Your task to perform on an android device: What is the recent news? Image 0: 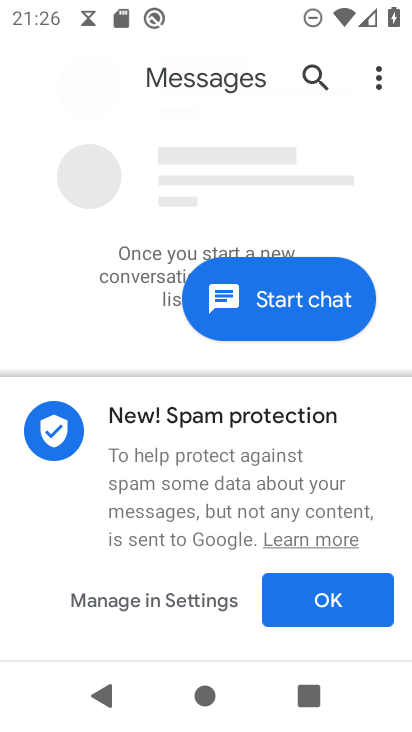
Step 0: press home button
Your task to perform on an android device: What is the recent news? Image 1: 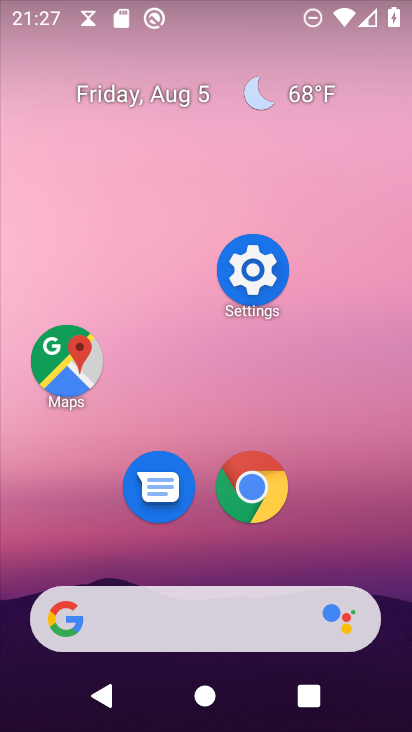
Step 1: click (126, 622)
Your task to perform on an android device: What is the recent news? Image 2: 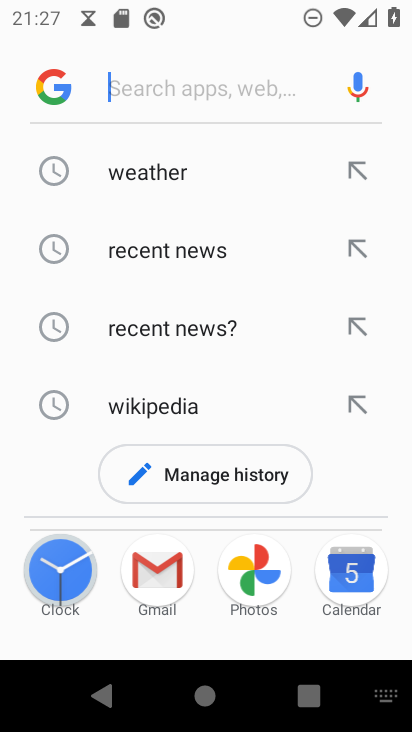
Step 2: click (169, 244)
Your task to perform on an android device: What is the recent news? Image 3: 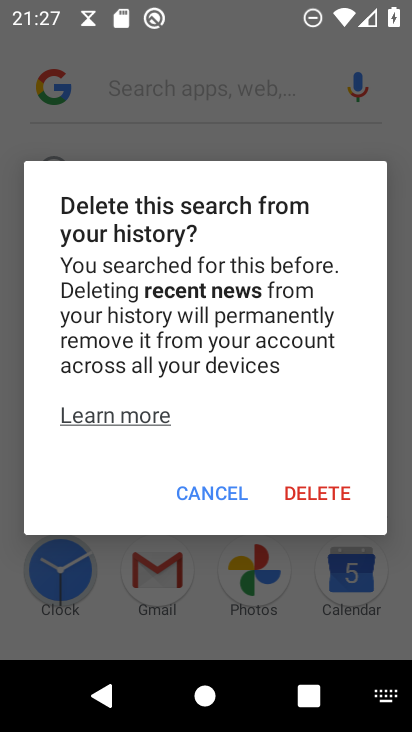
Step 3: click (207, 493)
Your task to perform on an android device: What is the recent news? Image 4: 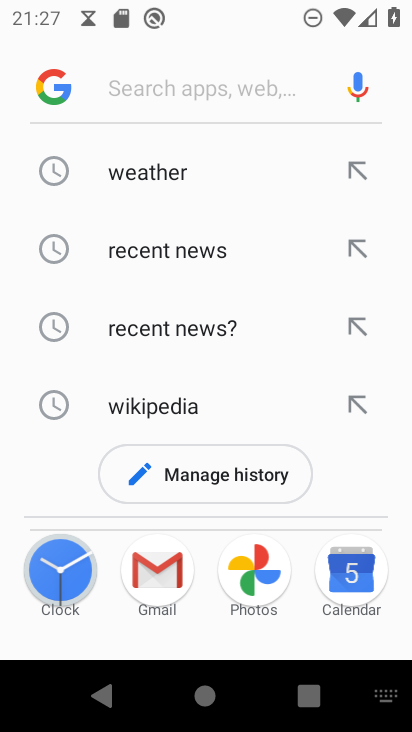
Step 4: click (149, 251)
Your task to perform on an android device: What is the recent news? Image 5: 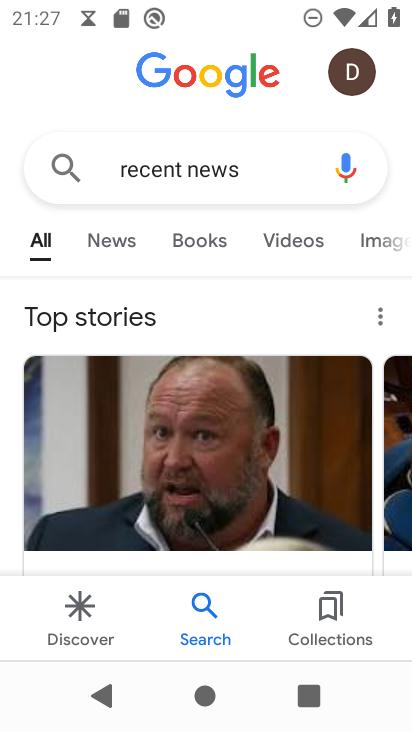
Step 5: click (123, 238)
Your task to perform on an android device: What is the recent news? Image 6: 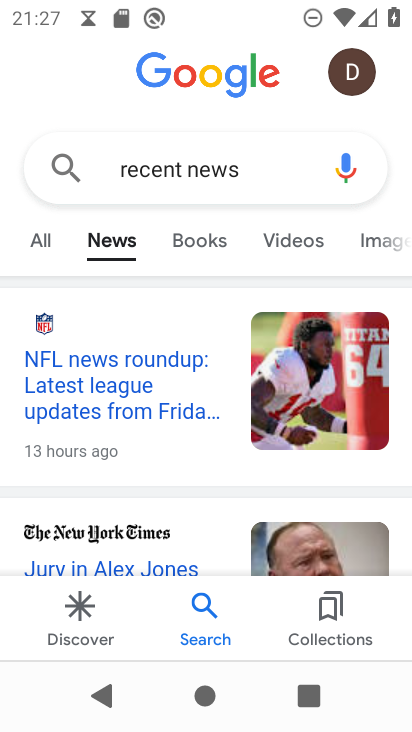
Step 6: task complete